Your task to perform on an android device: Turn on the flashlight Image 0: 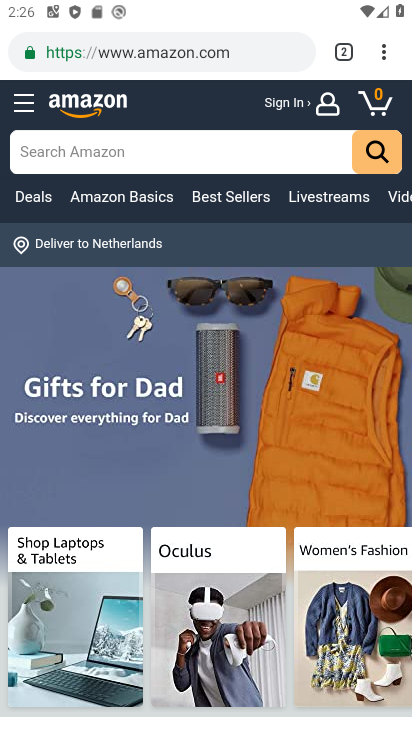
Step 0: press home button
Your task to perform on an android device: Turn on the flashlight Image 1: 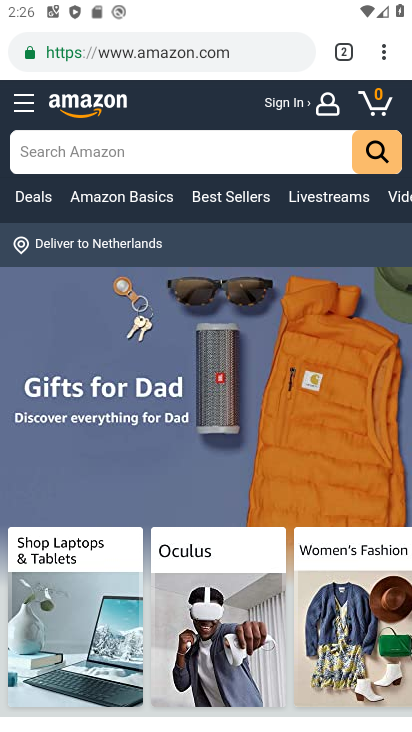
Step 1: drag from (366, 113) to (384, 61)
Your task to perform on an android device: Turn on the flashlight Image 2: 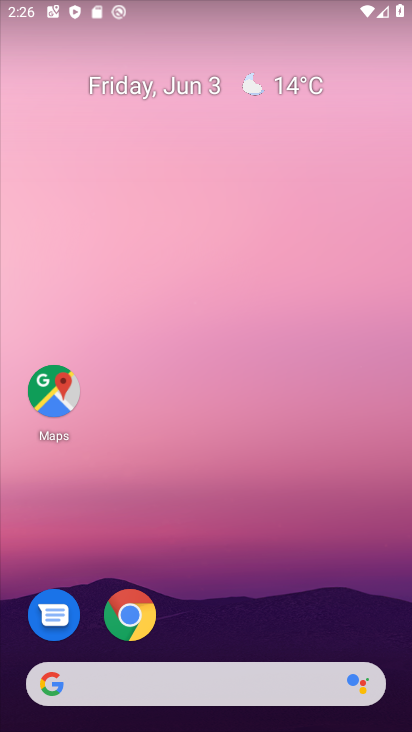
Step 2: drag from (208, 647) to (208, 62)
Your task to perform on an android device: Turn on the flashlight Image 3: 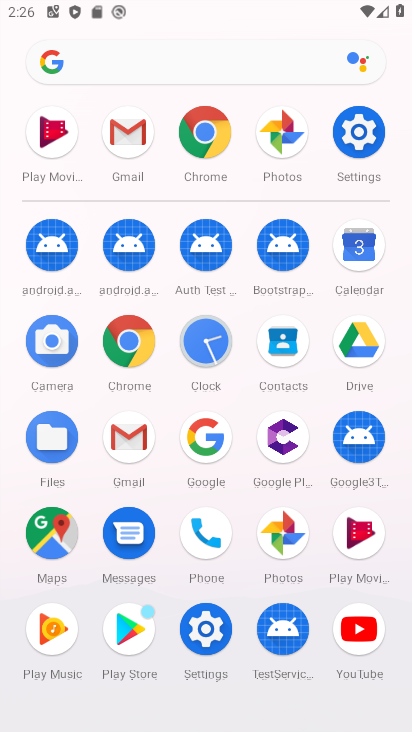
Step 3: click (357, 126)
Your task to perform on an android device: Turn on the flashlight Image 4: 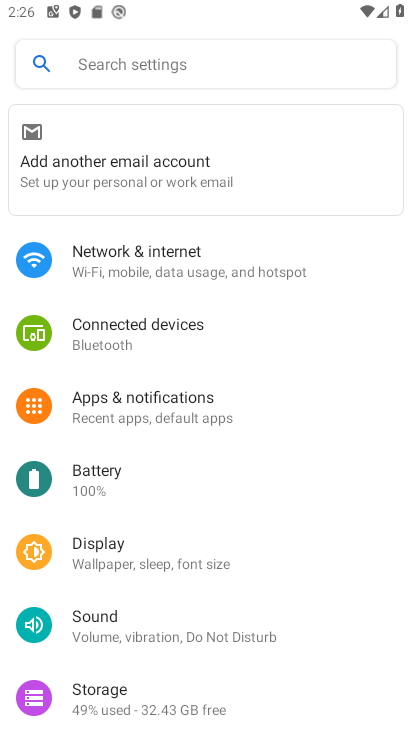
Step 4: click (133, 49)
Your task to perform on an android device: Turn on the flashlight Image 5: 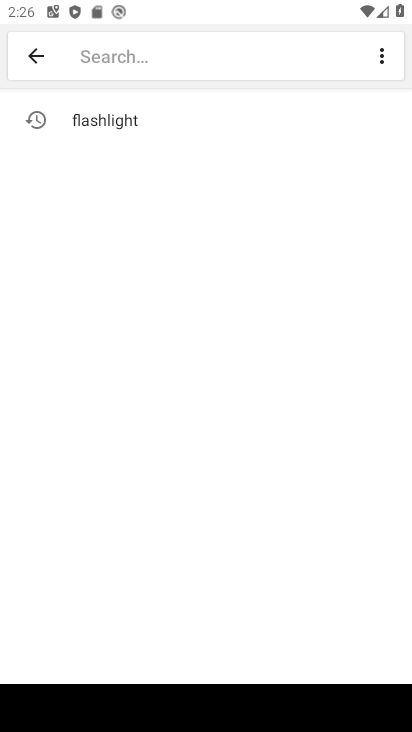
Step 5: click (138, 127)
Your task to perform on an android device: Turn on the flashlight Image 6: 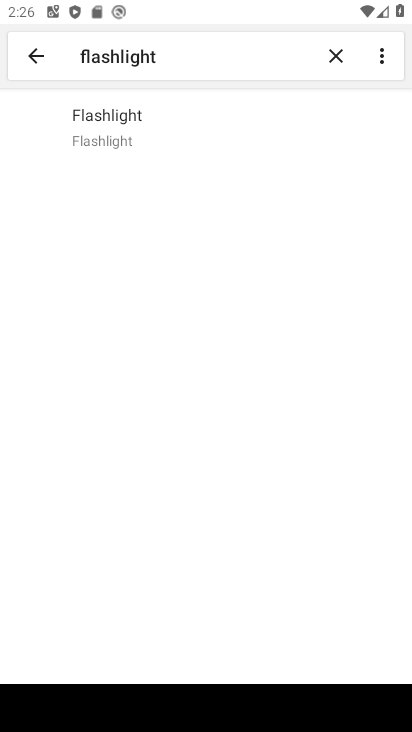
Step 6: task complete